Your task to perform on an android device: Search for razer blade on walmart.com, select the first entry, and add it to the cart. Image 0: 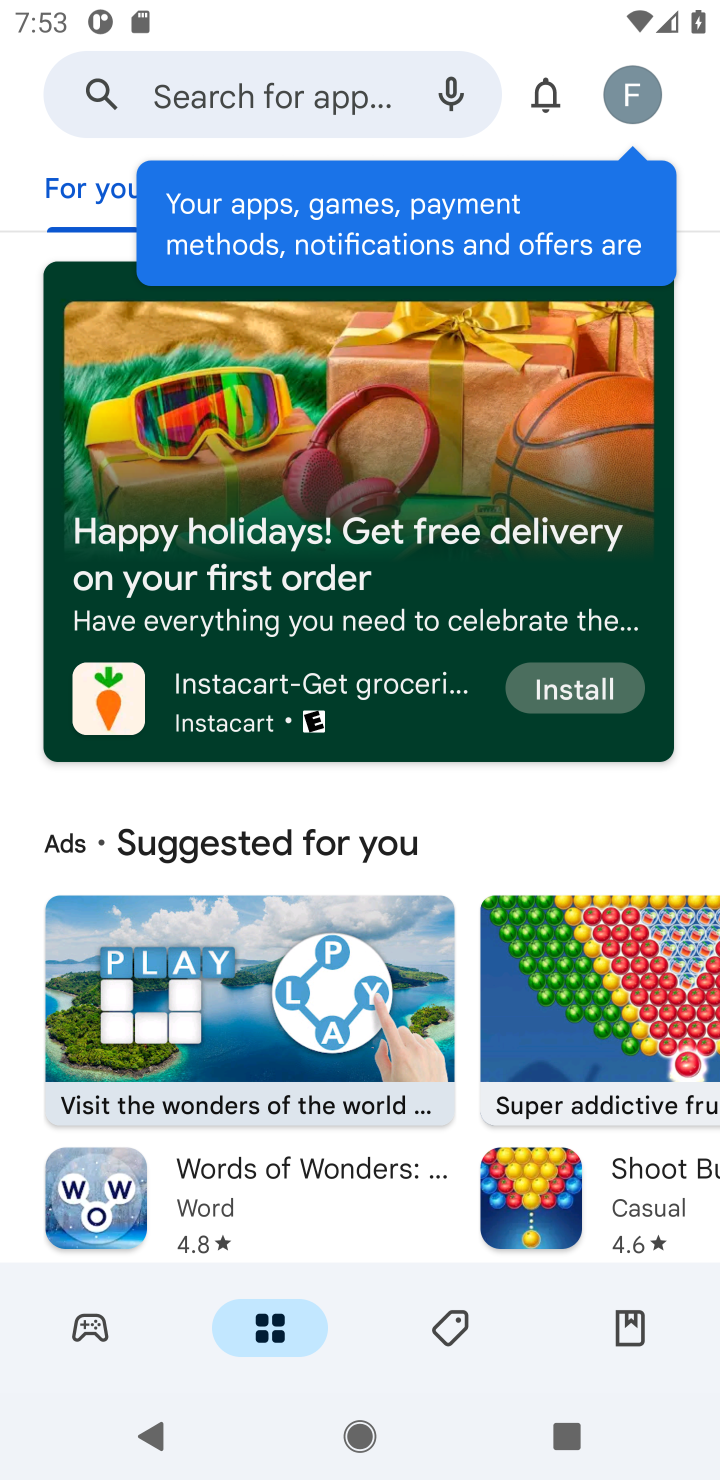
Step 0: press home button
Your task to perform on an android device: Search for razer blade on walmart.com, select the first entry, and add it to the cart. Image 1: 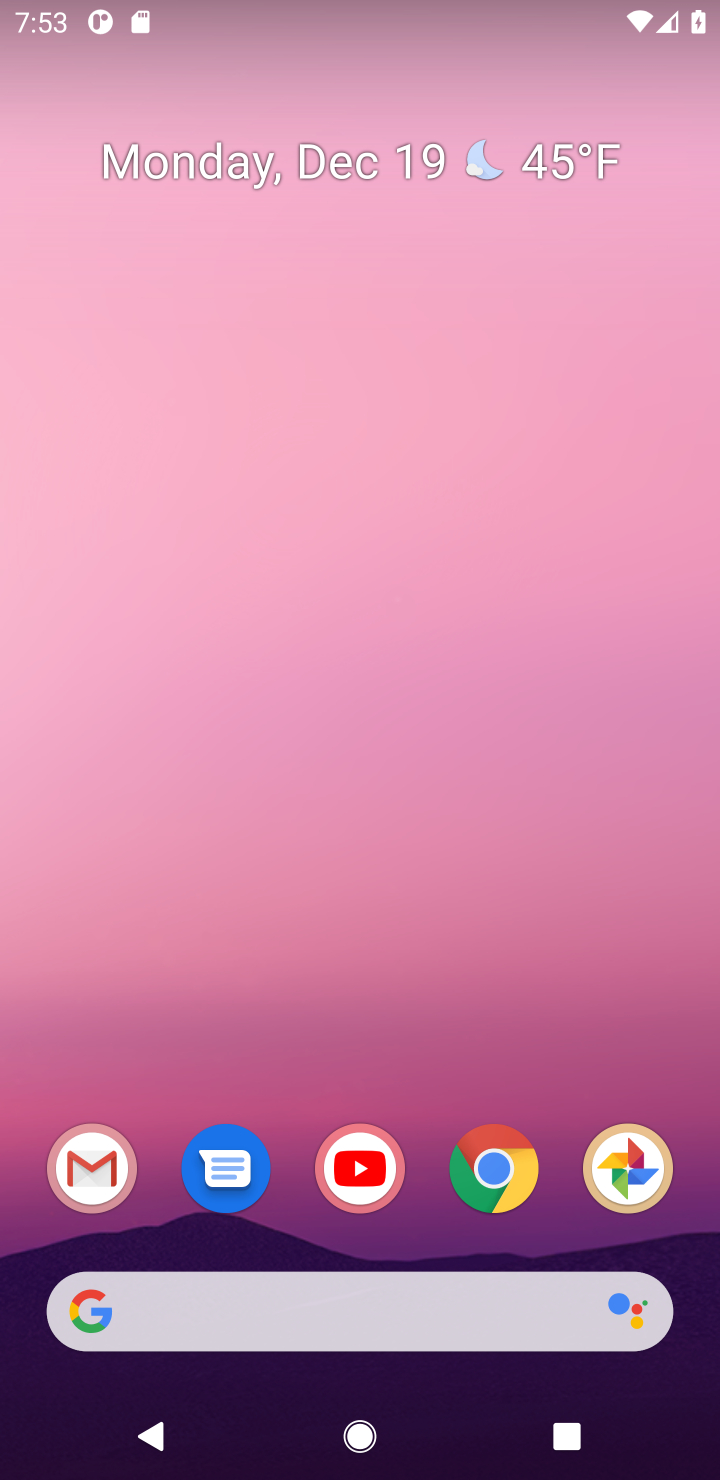
Step 1: click (496, 1172)
Your task to perform on an android device: Search for razer blade on walmart.com, select the first entry, and add it to the cart. Image 2: 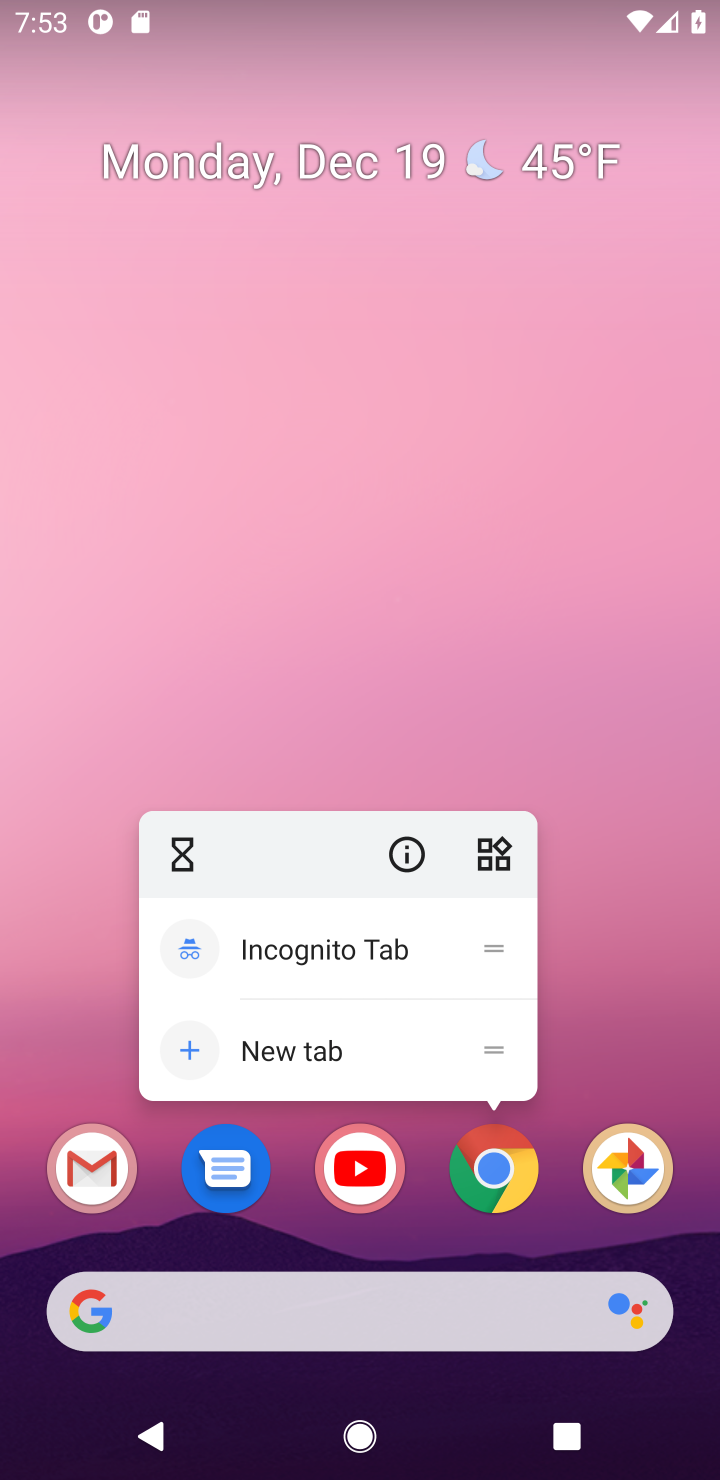
Step 2: click (496, 1172)
Your task to perform on an android device: Search for razer blade on walmart.com, select the first entry, and add it to the cart. Image 3: 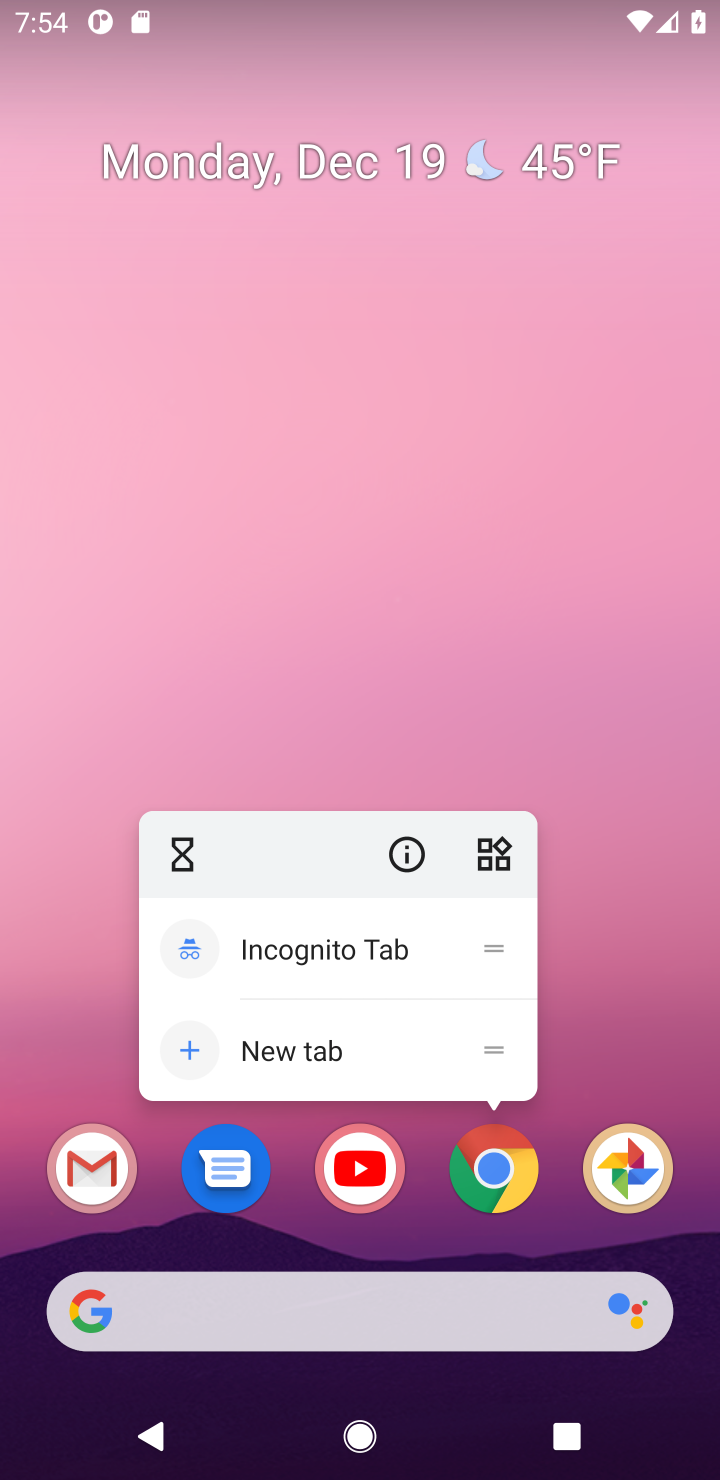
Step 3: click (624, 971)
Your task to perform on an android device: Search for razer blade on walmart.com, select the first entry, and add it to the cart. Image 4: 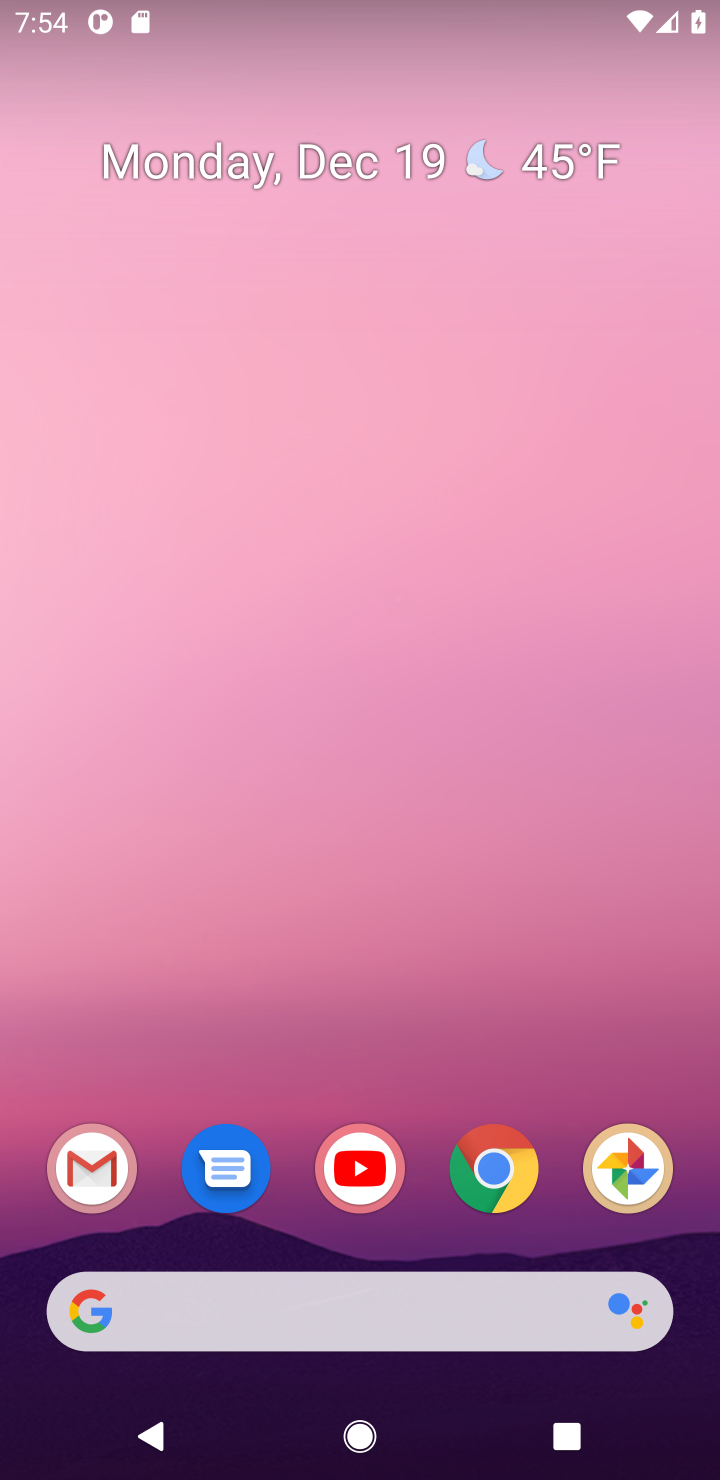
Step 4: click (501, 1184)
Your task to perform on an android device: Search for razer blade on walmart.com, select the first entry, and add it to the cart. Image 5: 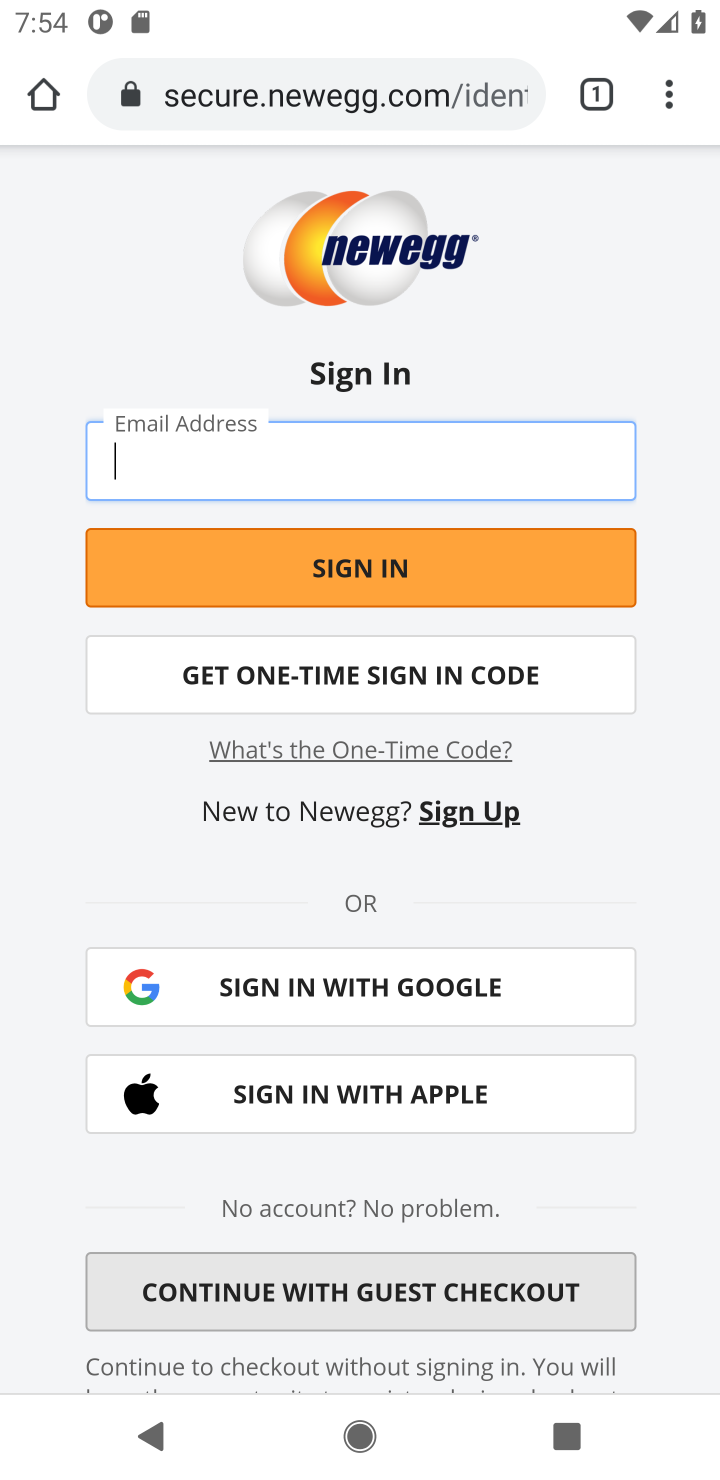
Step 5: click (242, 96)
Your task to perform on an android device: Search for razer blade on walmart.com, select the first entry, and add it to the cart. Image 6: 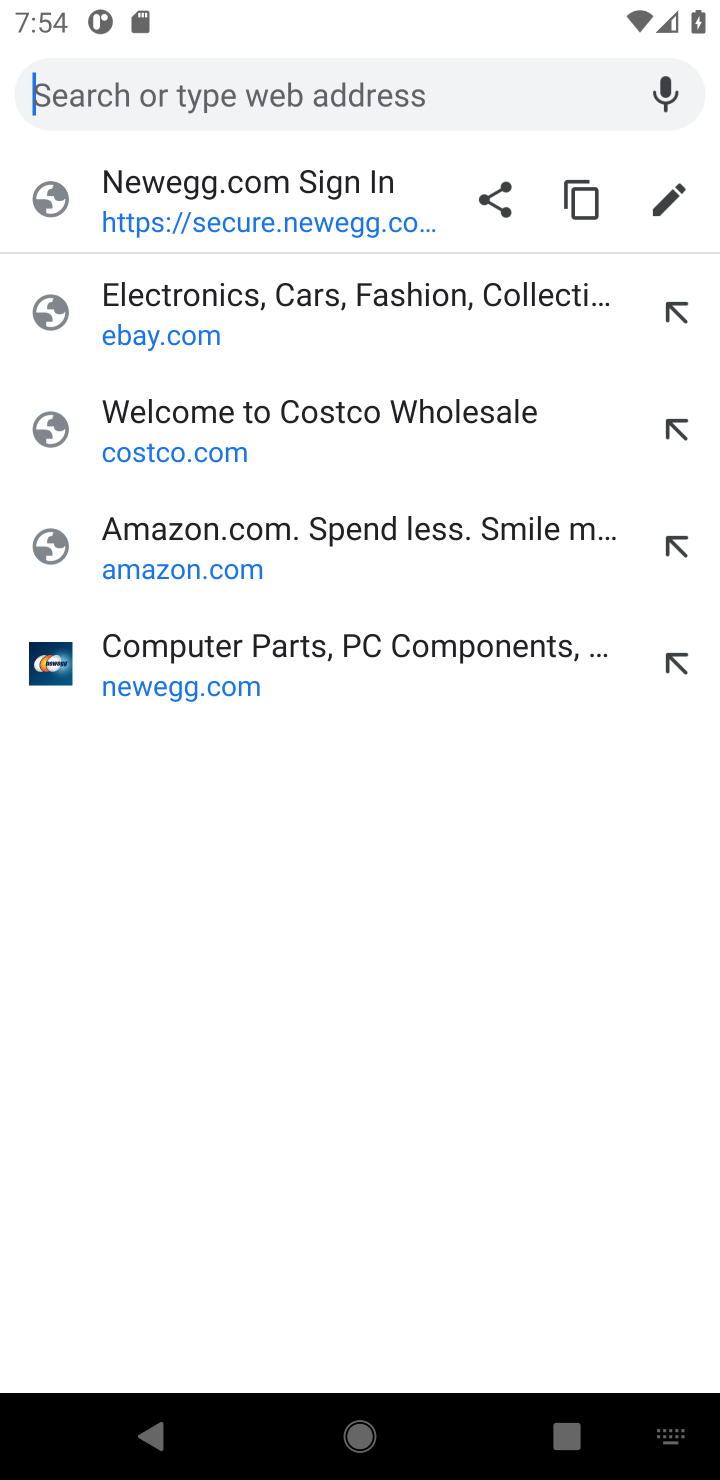
Step 6: type "walmart.com"
Your task to perform on an android device: Search for razer blade on walmart.com, select the first entry, and add it to the cart. Image 7: 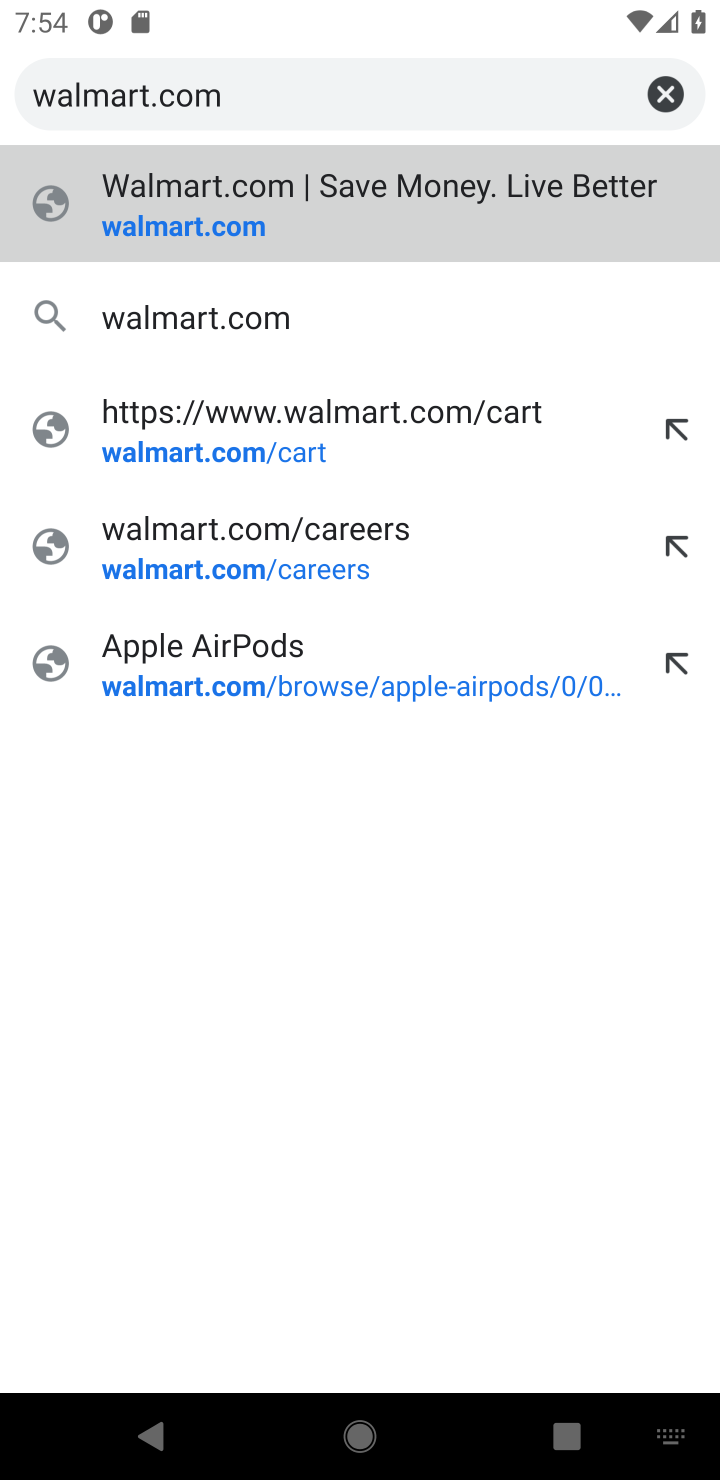
Step 7: click (200, 237)
Your task to perform on an android device: Search for razer blade on walmart.com, select the first entry, and add it to the cart. Image 8: 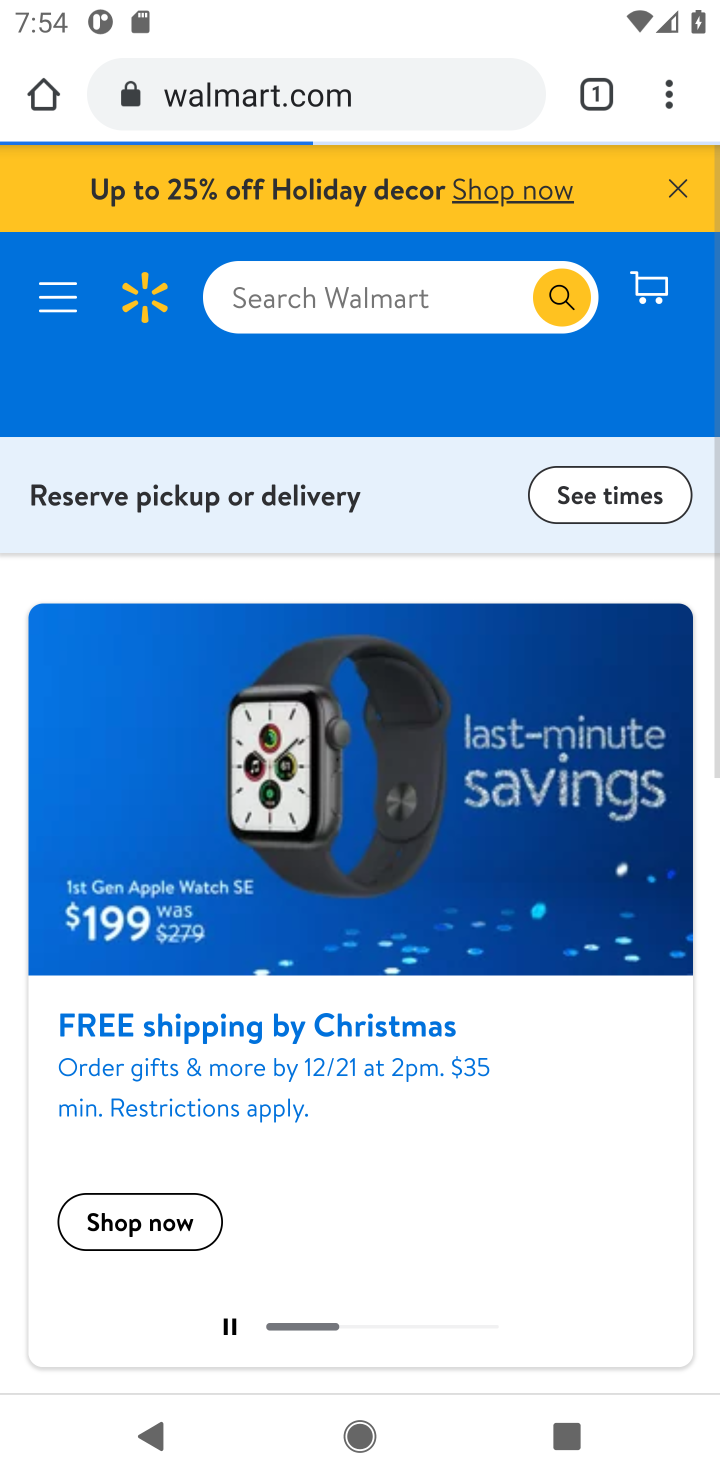
Step 8: click (290, 292)
Your task to perform on an android device: Search for razer blade on walmart.com, select the first entry, and add it to the cart. Image 9: 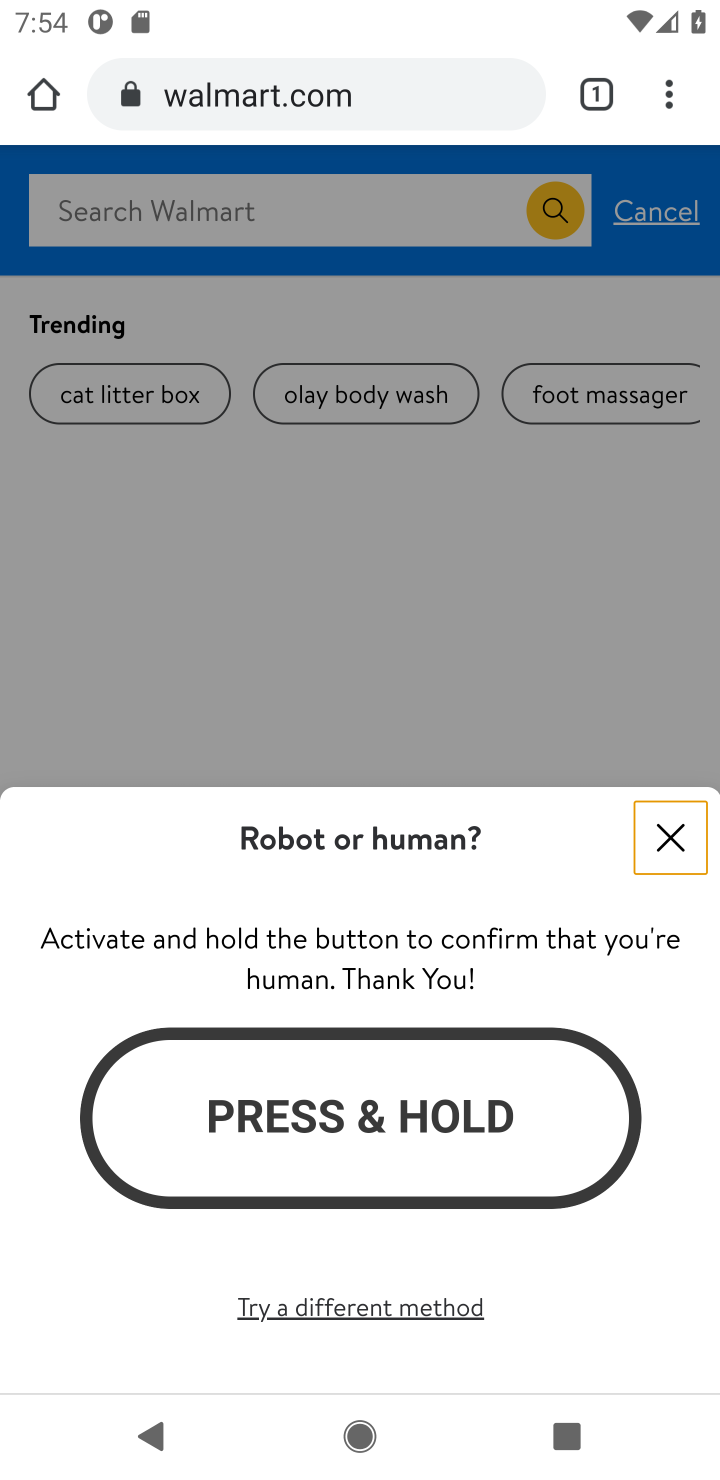
Step 9: type " razer blade"
Your task to perform on an android device: Search for razer blade on walmart.com, select the first entry, and add it to the cart. Image 10: 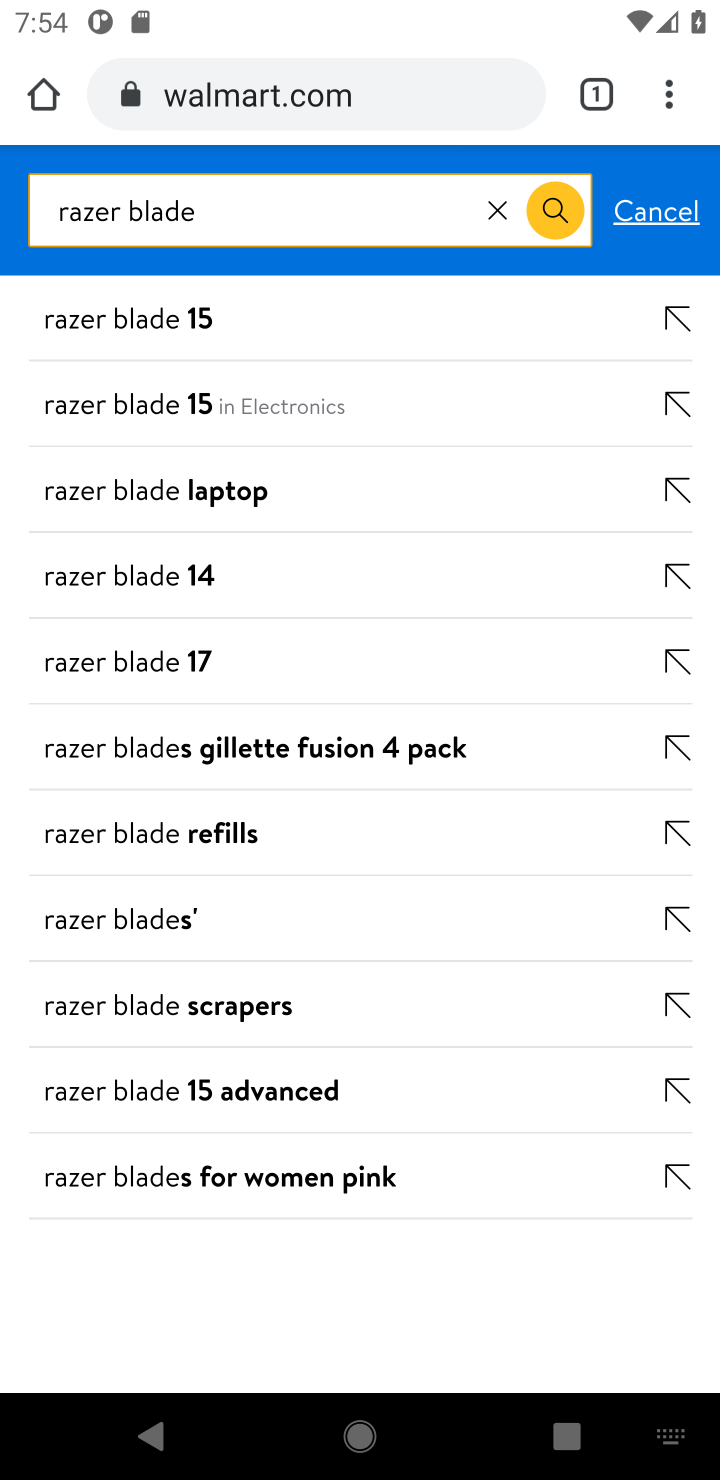
Step 10: click (104, 329)
Your task to perform on an android device: Search for razer blade on walmart.com, select the first entry, and add it to the cart. Image 11: 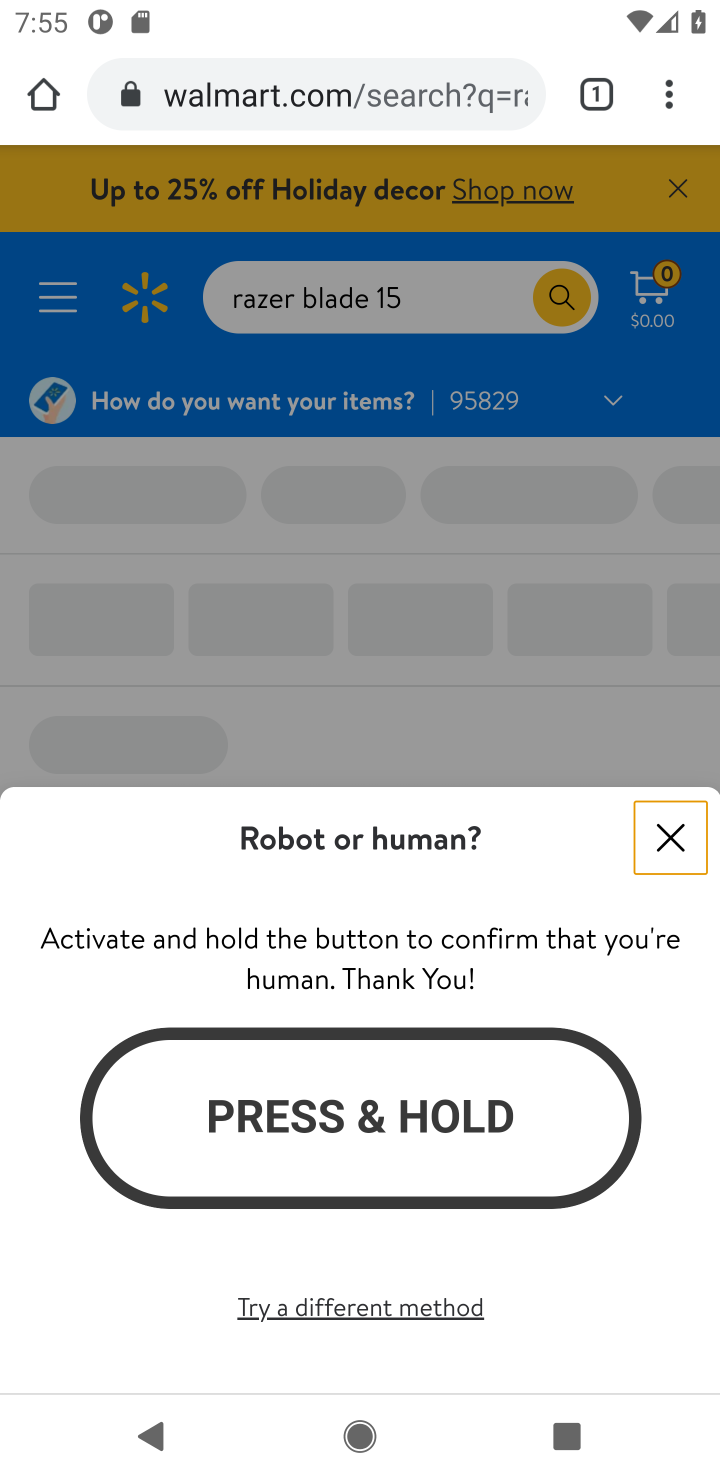
Step 11: click (335, 1311)
Your task to perform on an android device: Search for razer blade on walmart.com, select the first entry, and add it to the cart. Image 12: 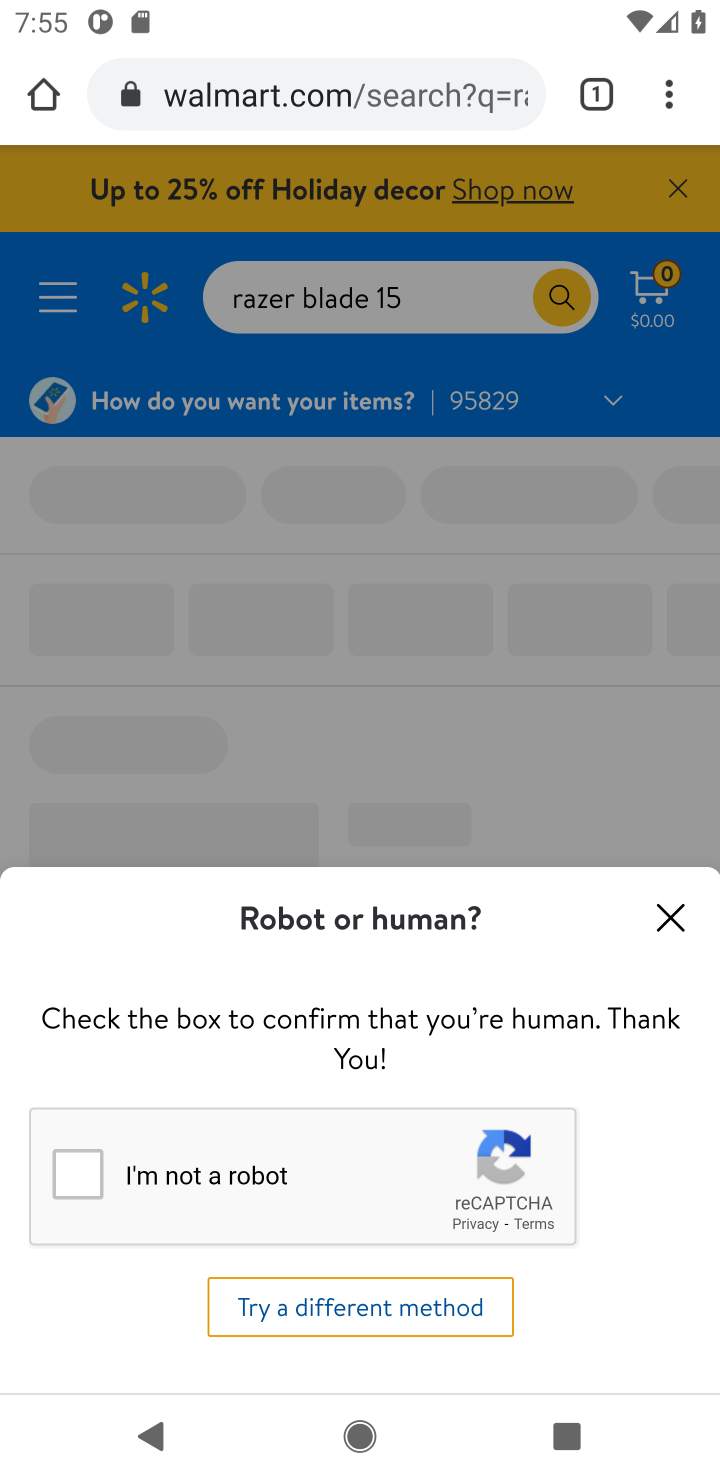
Step 12: click (65, 1167)
Your task to perform on an android device: Search for razer blade on walmart.com, select the first entry, and add it to the cart. Image 13: 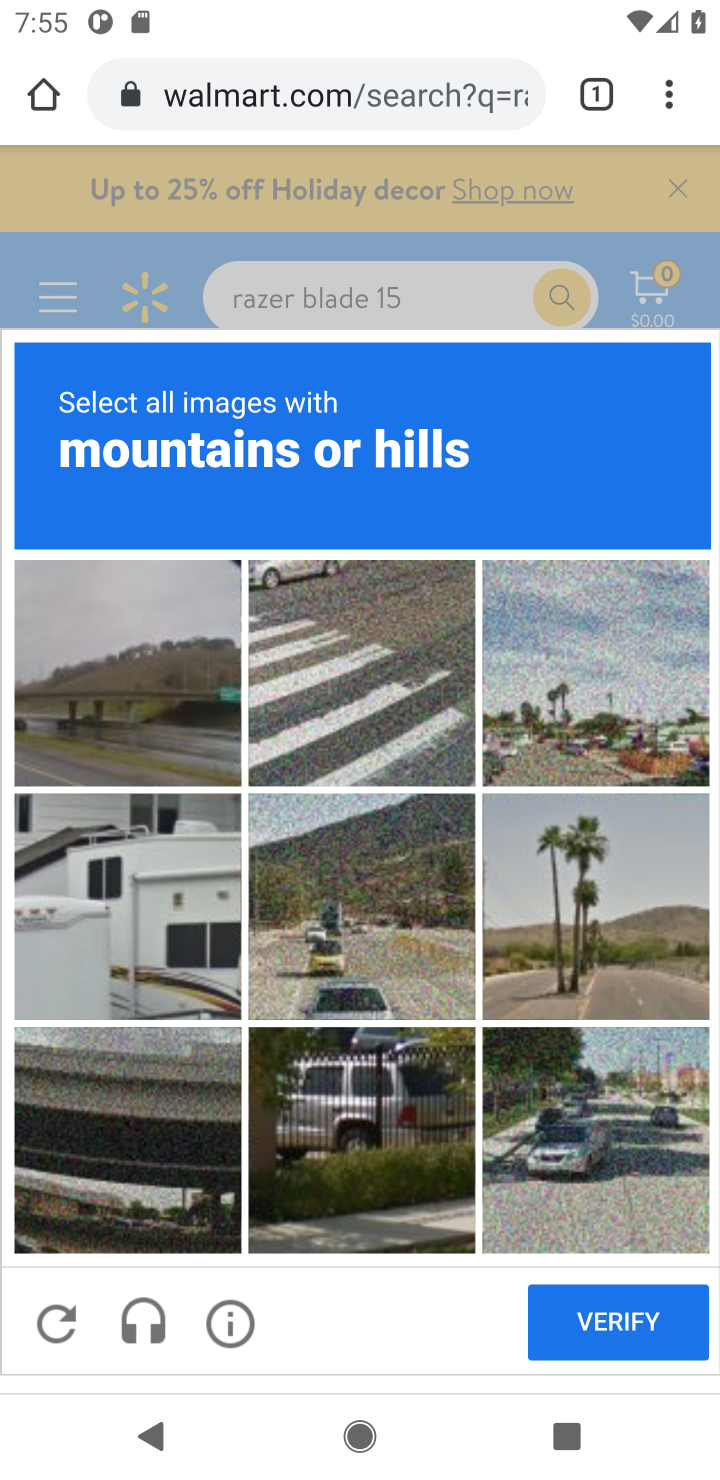
Step 13: click (156, 706)
Your task to perform on an android device: Search for razer blade on walmart.com, select the first entry, and add it to the cart. Image 14: 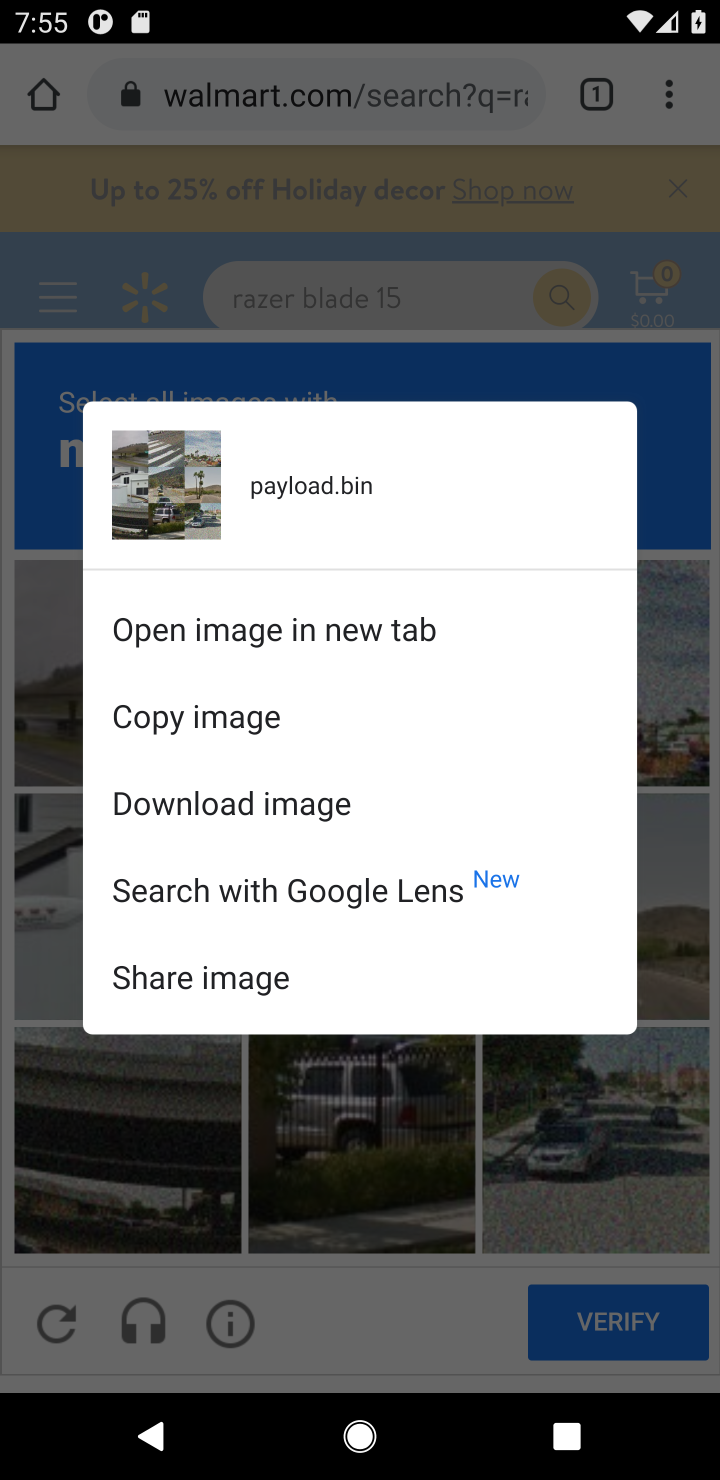
Step 14: click (29, 671)
Your task to perform on an android device: Search for razer blade on walmart.com, select the first entry, and add it to the cart. Image 15: 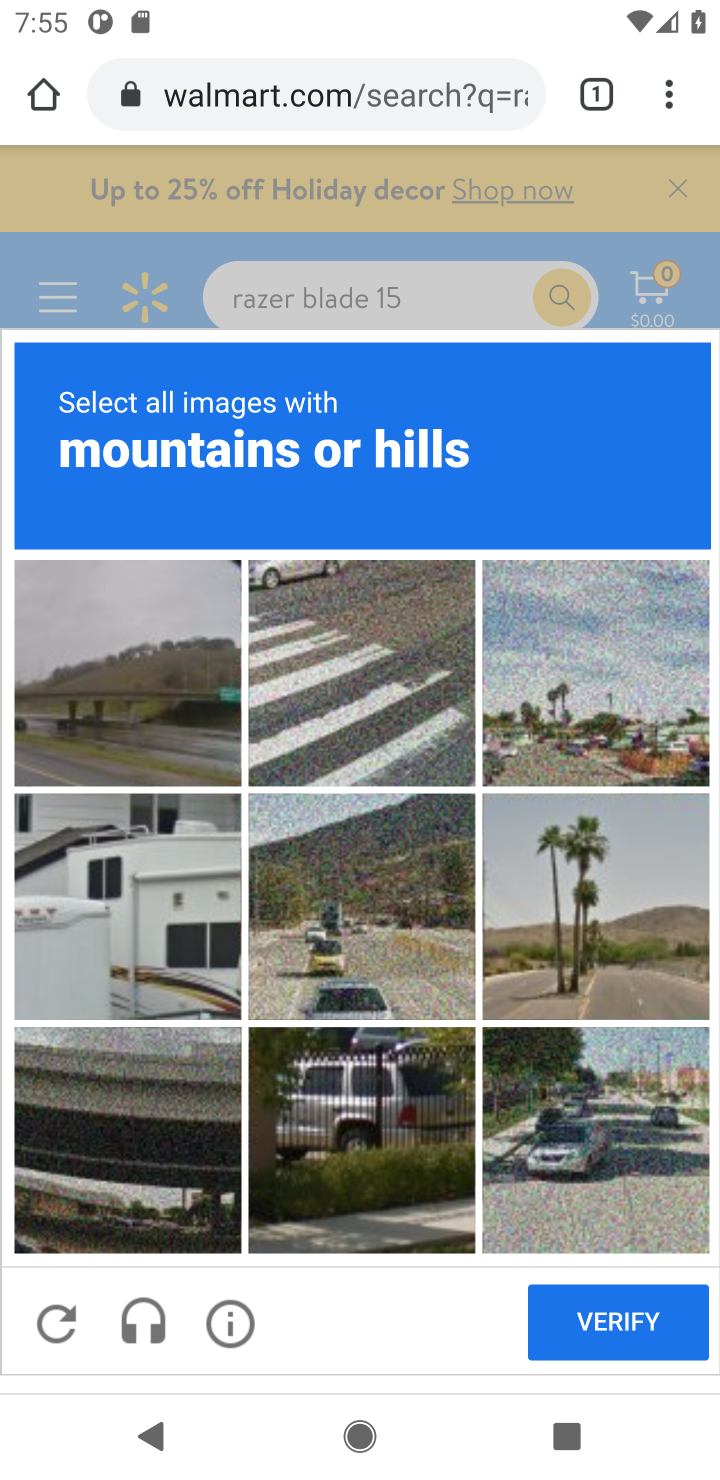
Step 15: click (74, 669)
Your task to perform on an android device: Search for razer blade on walmart.com, select the first entry, and add it to the cart. Image 16: 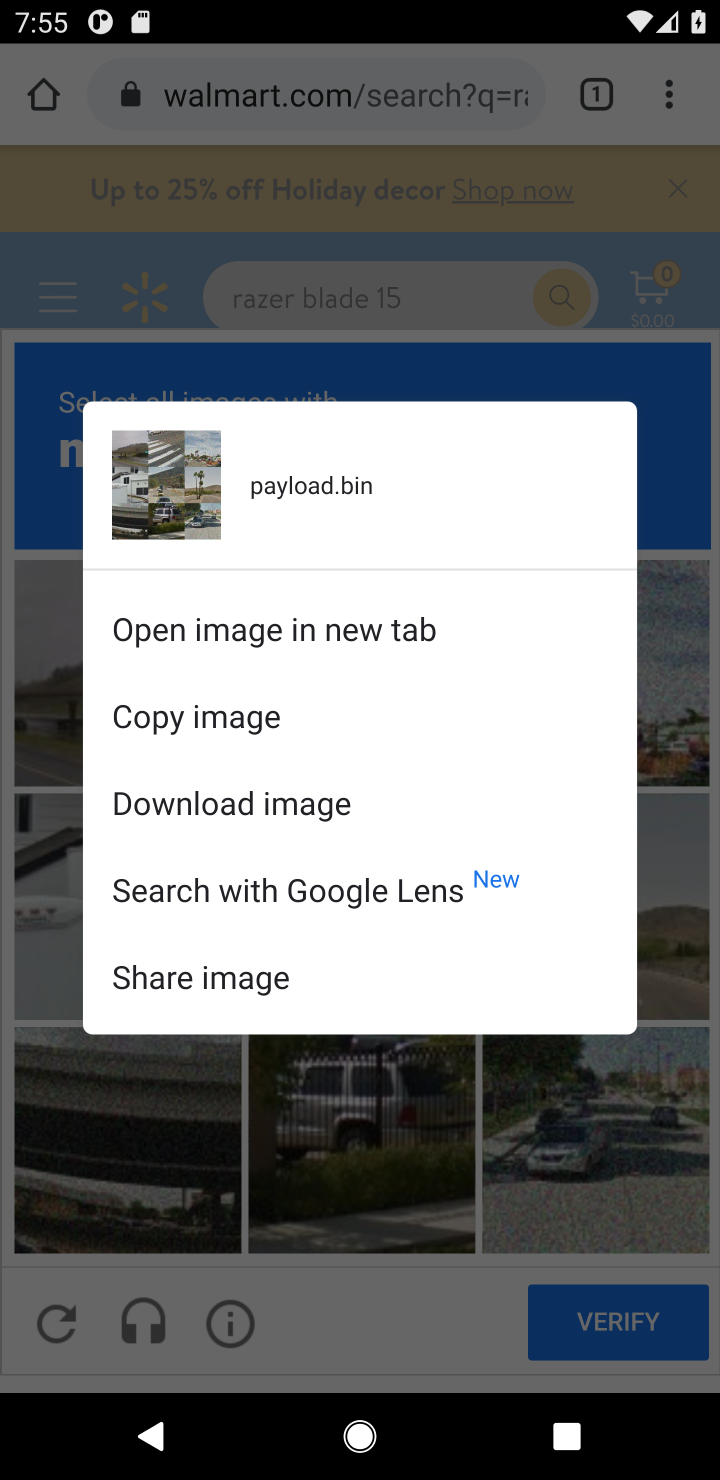
Step 16: click (74, 669)
Your task to perform on an android device: Search for razer blade on walmart.com, select the first entry, and add it to the cart. Image 17: 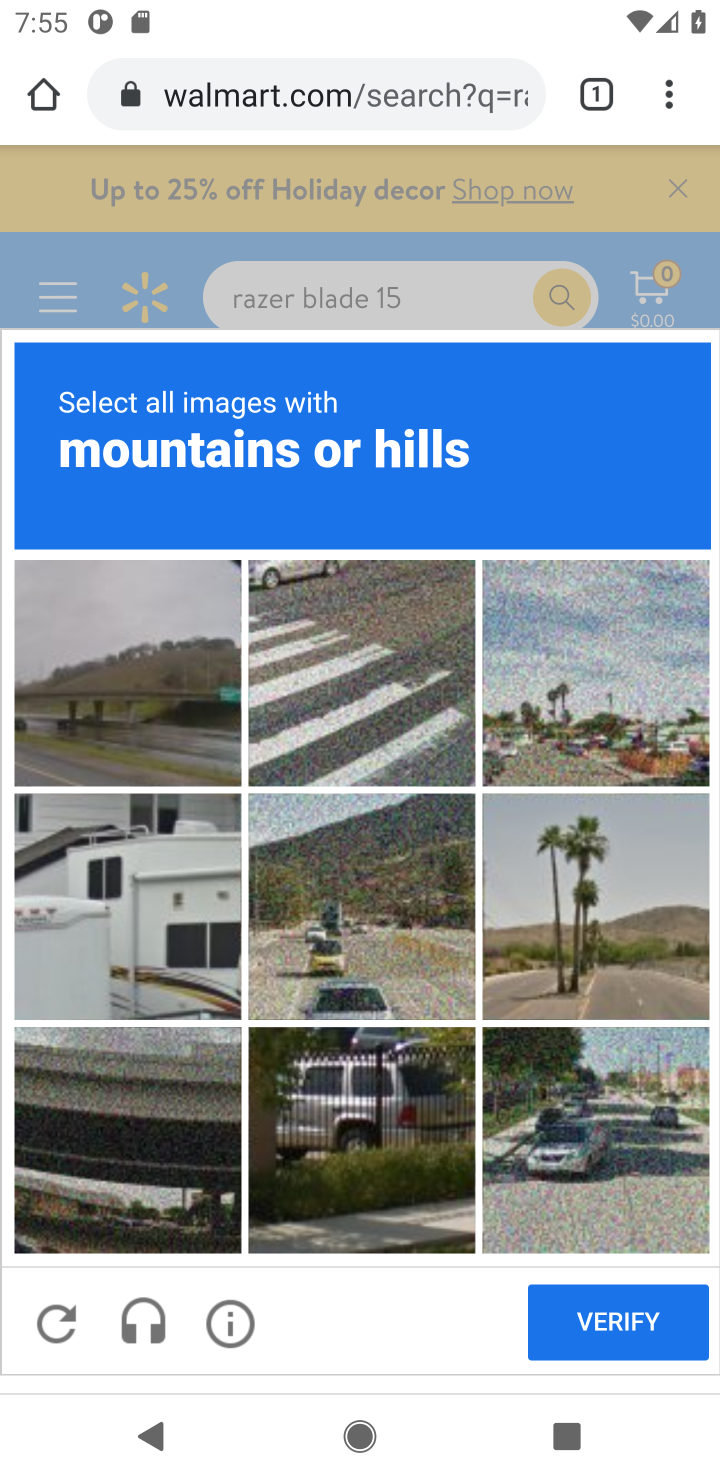
Step 17: click (338, 869)
Your task to perform on an android device: Search for razer blade on walmart.com, select the first entry, and add it to the cart. Image 18: 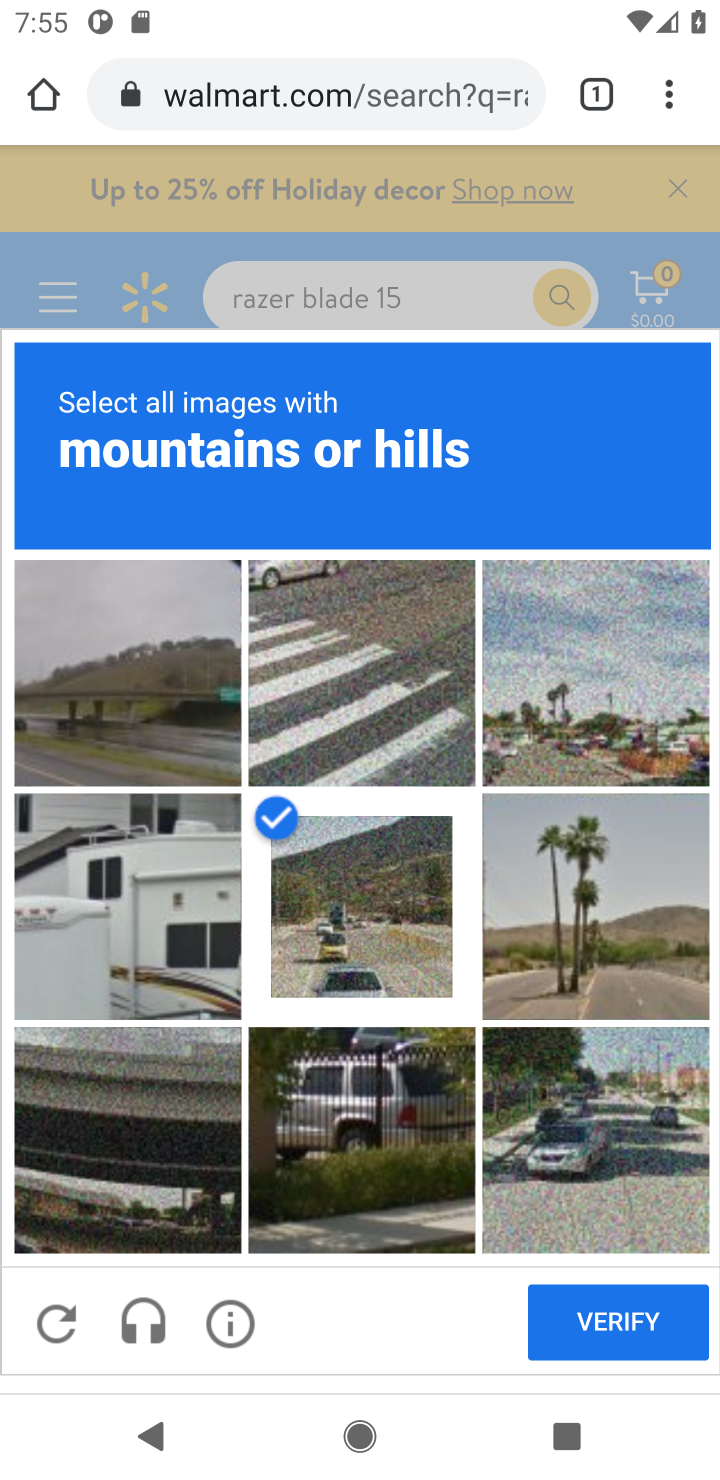
Step 18: click (601, 931)
Your task to perform on an android device: Search for razer blade on walmart.com, select the first entry, and add it to the cart. Image 19: 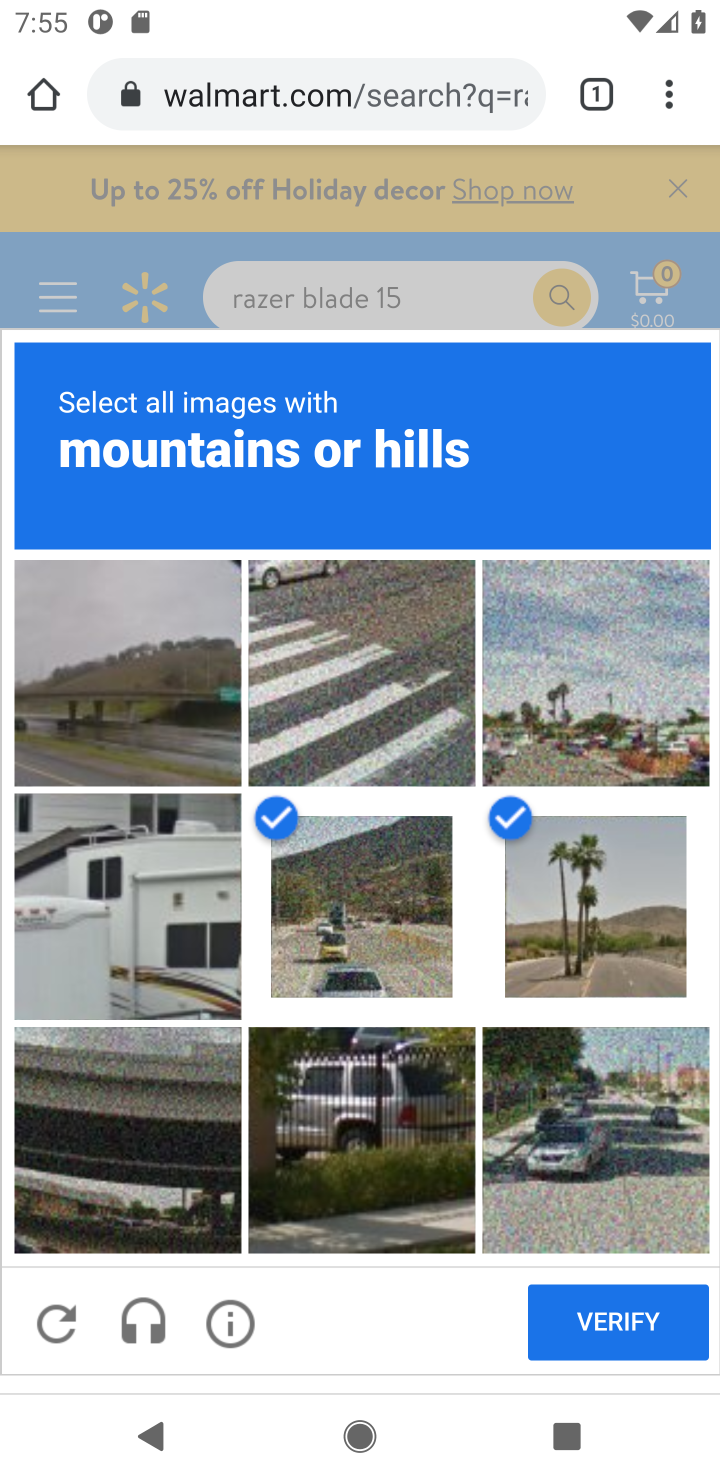
Step 19: click (144, 663)
Your task to perform on an android device: Search for razer blade on walmart.com, select the first entry, and add it to the cart. Image 20: 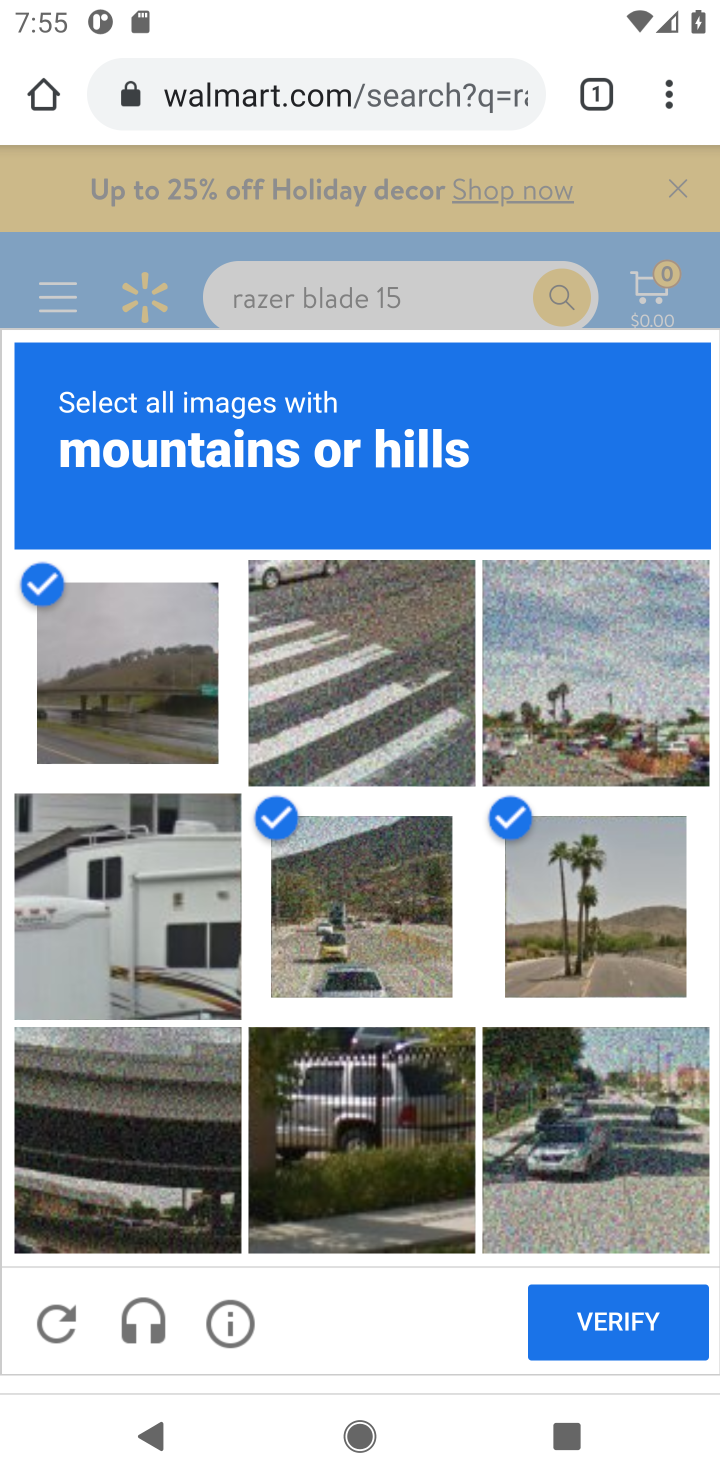
Step 20: click (588, 1310)
Your task to perform on an android device: Search for razer blade on walmart.com, select the first entry, and add it to the cart. Image 21: 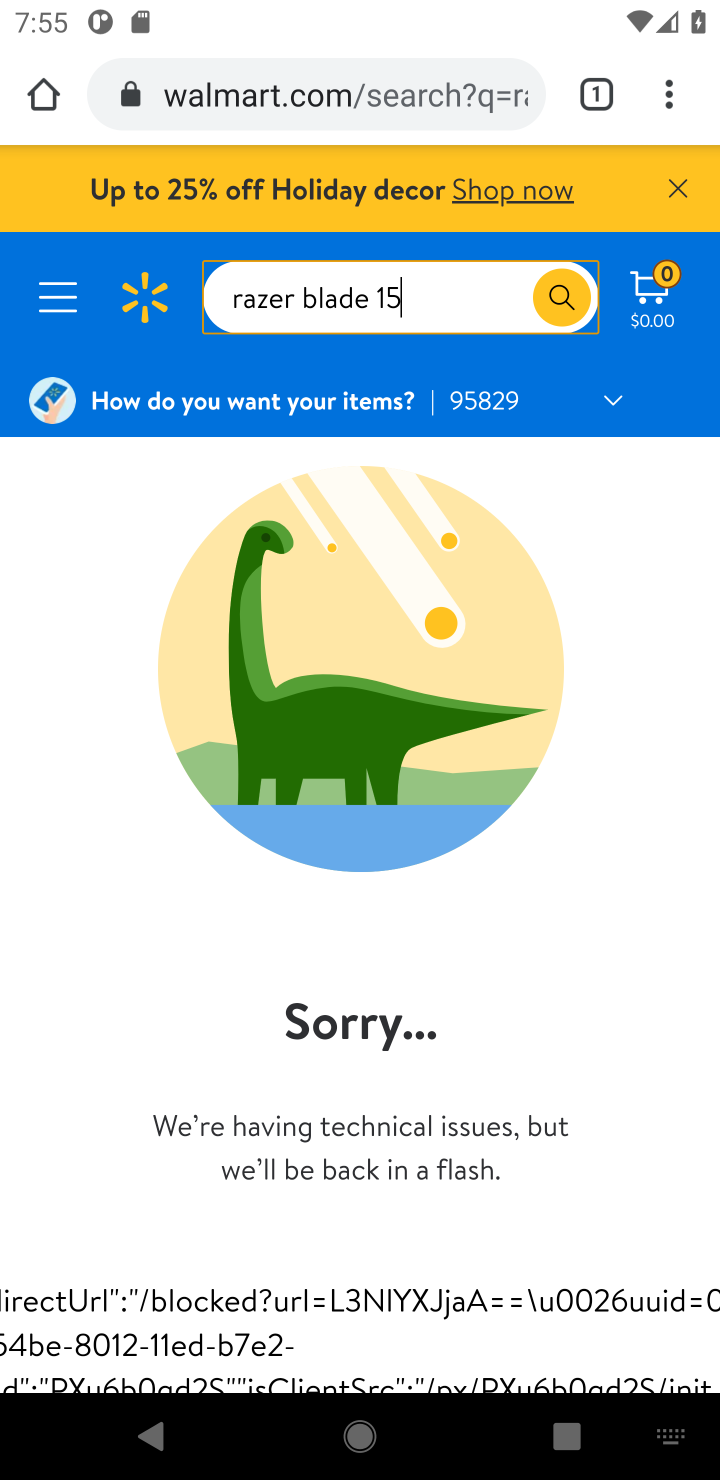
Step 21: task complete